Your task to perform on an android device: Add "logitech g933" to the cart on target.com Image 0: 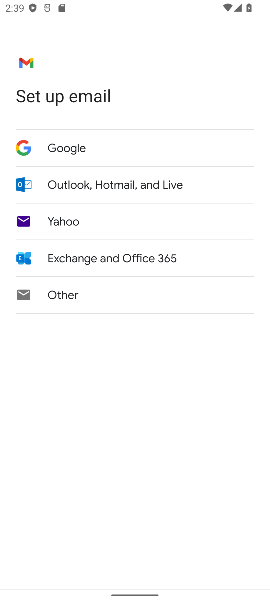
Step 0: press home button
Your task to perform on an android device: Add "logitech g933" to the cart on target.com Image 1: 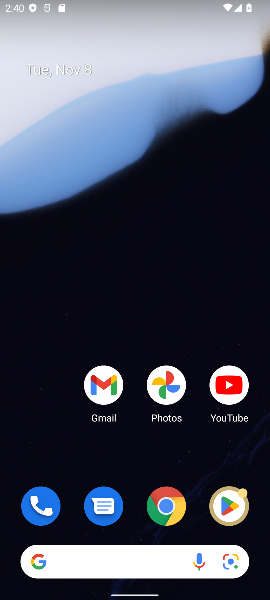
Step 1: drag from (157, 493) to (219, 222)
Your task to perform on an android device: Add "logitech g933" to the cart on target.com Image 2: 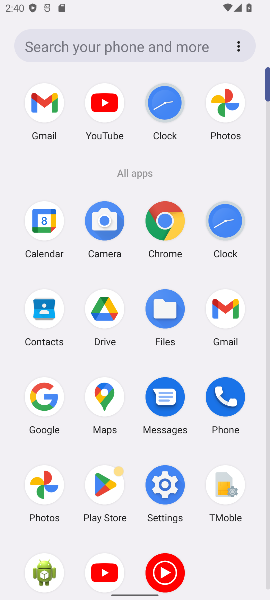
Step 2: click (61, 396)
Your task to perform on an android device: Add "logitech g933" to the cart on target.com Image 3: 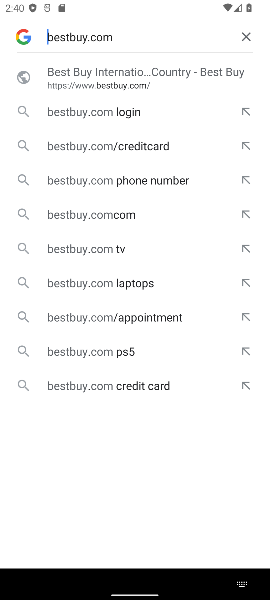
Step 3: click (250, 38)
Your task to perform on an android device: Add "logitech g933" to the cart on target.com Image 4: 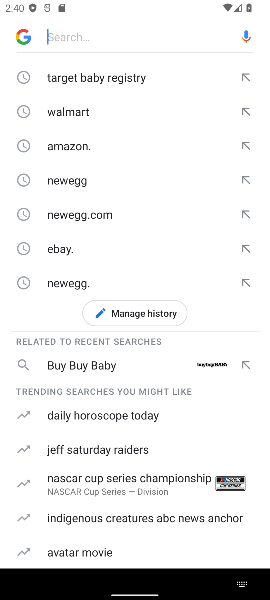
Step 4: type "target.com"
Your task to perform on an android device: Add "logitech g933" to the cart on target.com Image 5: 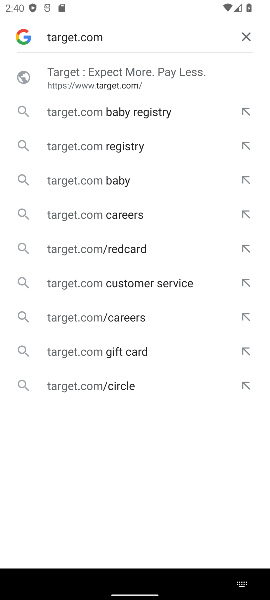
Step 5: click (95, 79)
Your task to perform on an android device: Add "logitech g933" to the cart on target.com Image 6: 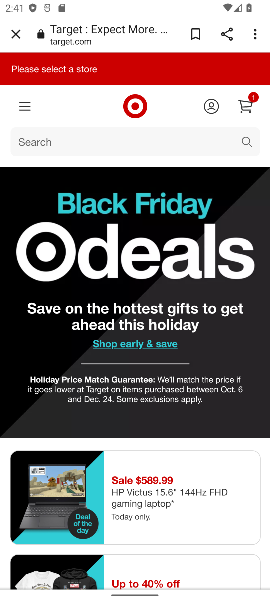
Step 6: click (137, 138)
Your task to perform on an android device: Add "logitech g933" to the cart on target.com Image 7: 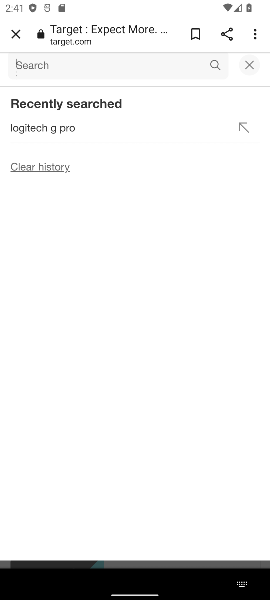
Step 7: type "target.com"
Your task to perform on an android device: Add "logitech g933" to the cart on target.com Image 8: 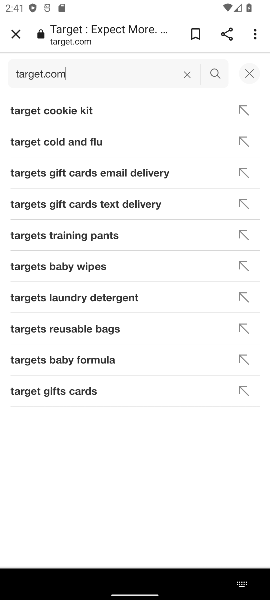
Step 8: click (189, 67)
Your task to perform on an android device: Add "logitech g933" to the cart on target.com Image 9: 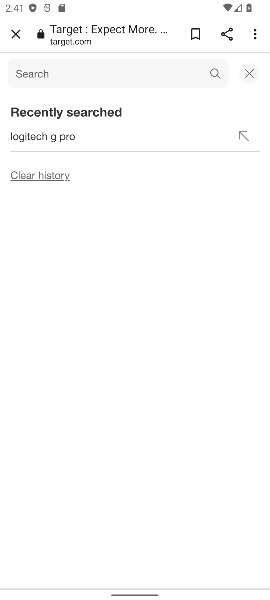
Step 9: click (134, 68)
Your task to perform on an android device: Add "logitech g933" to the cart on target.com Image 10: 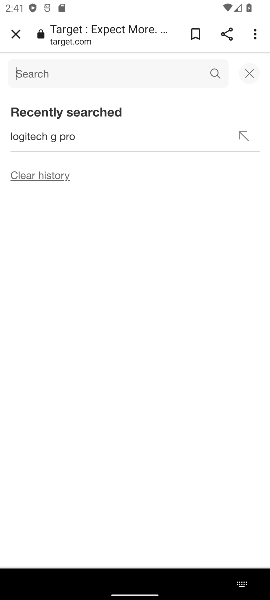
Step 10: type "target.com"
Your task to perform on an android device: Add "logitech g933" to the cart on target.com Image 11: 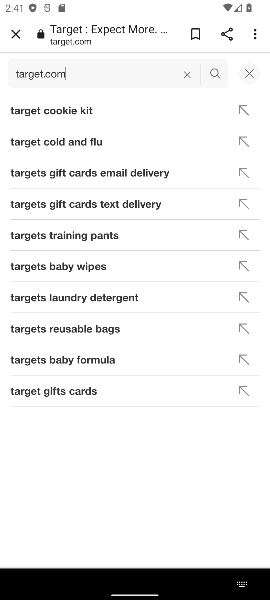
Step 11: click (186, 75)
Your task to perform on an android device: Add "logitech g933" to the cart on target.com Image 12: 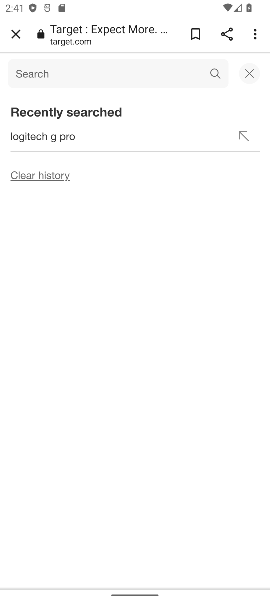
Step 12: click (37, 72)
Your task to perform on an android device: Add "logitech g933" to the cart on target.com Image 13: 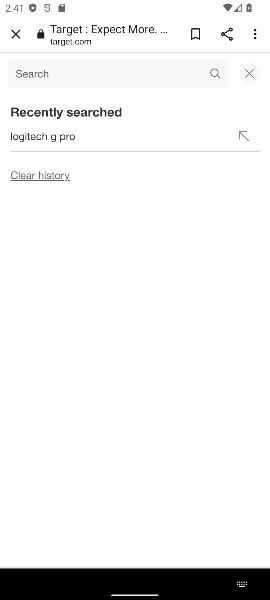
Step 13: type "logitech g933"
Your task to perform on an android device: Add "logitech g933" to the cart on target.com Image 14: 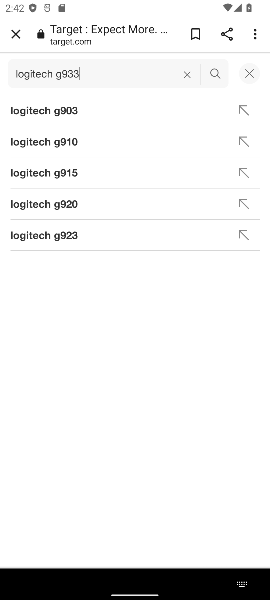
Step 14: task complete